Your task to perform on an android device: Open calendar and show me the third week of next month Image 0: 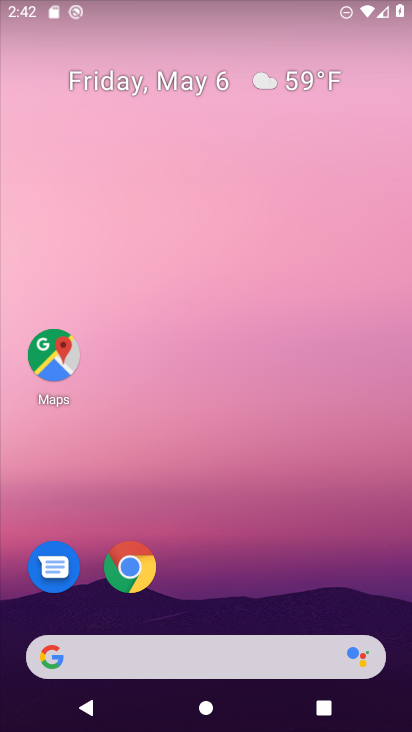
Step 0: drag from (154, 634) to (286, 130)
Your task to perform on an android device: Open calendar and show me the third week of next month Image 1: 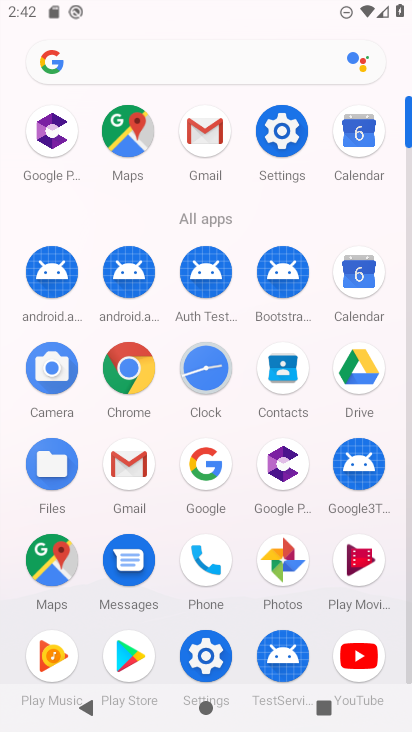
Step 1: click (353, 268)
Your task to perform on an android device: Open calendar and show me the third week of next month Image 2: 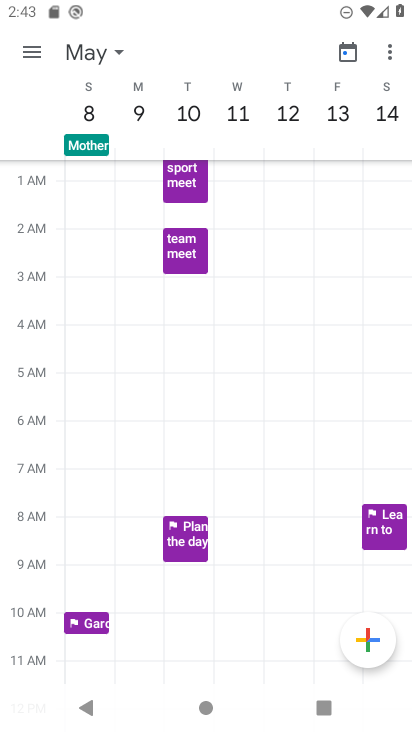
Step 2: click (110, 56)
Your task to perform on an android device: Open calendar and show me the third week of next month Image 3: 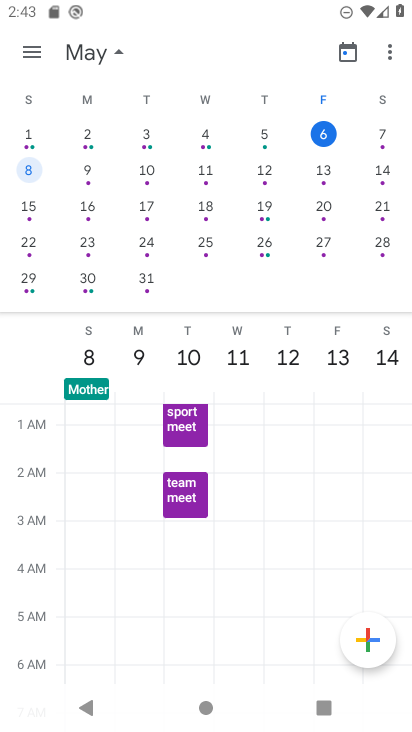
Step 3: drag from (316, 236) to (19, 224)
Your task to perform on an android device: Open calendar and show me the third week of next month Image 4: 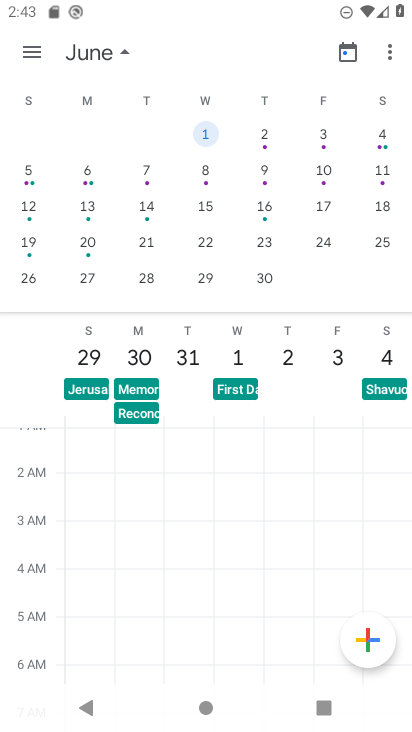
Step 4: click (28, 244)
Your task to perform on an android device: Open calendar and show me the third week of next month Image 5: 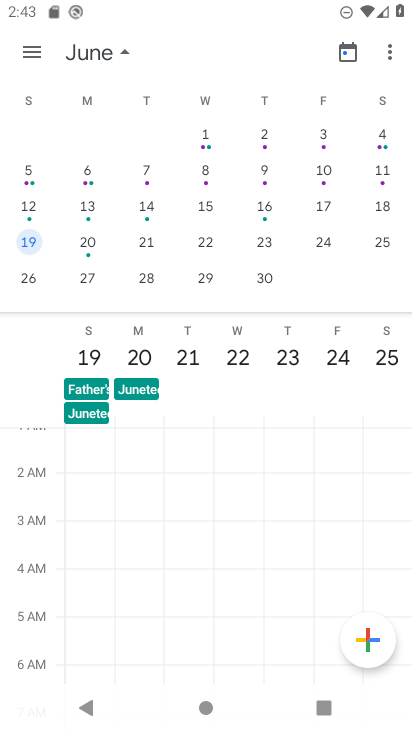
Step 5: click (119, 48)
Your task to perform on an android device: Open calendar and show me the third week of next month Image 6: 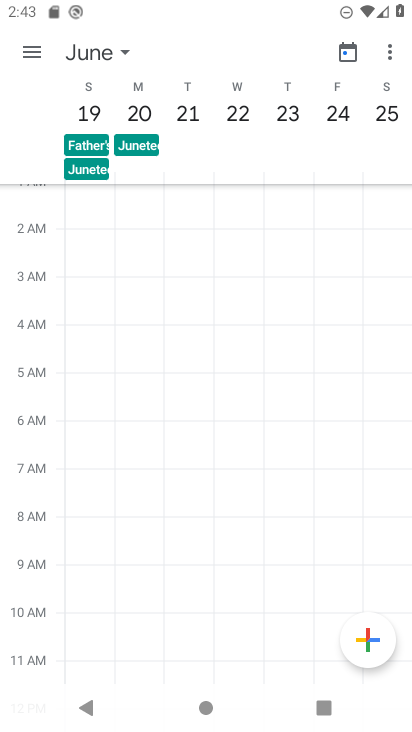
Step 6: task complete